Your task to perform on an android device: When is my next appointment? Image 0: 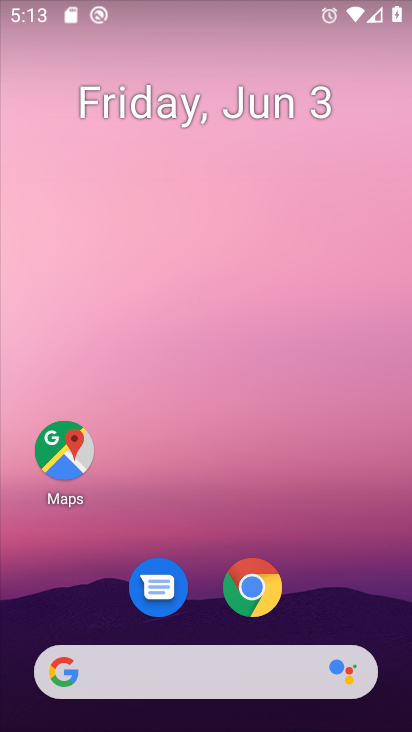
Step 0: drag from (122, 715) to (58, 51)
Your task to perform on an android device: When is my next appointment? Image 1: 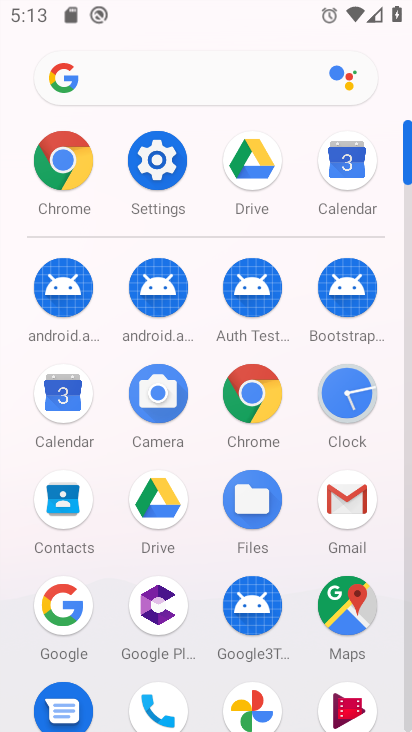
Step 1: click (350, 172)
Your task to perform on an android device: When is my next appointment? Image 2: 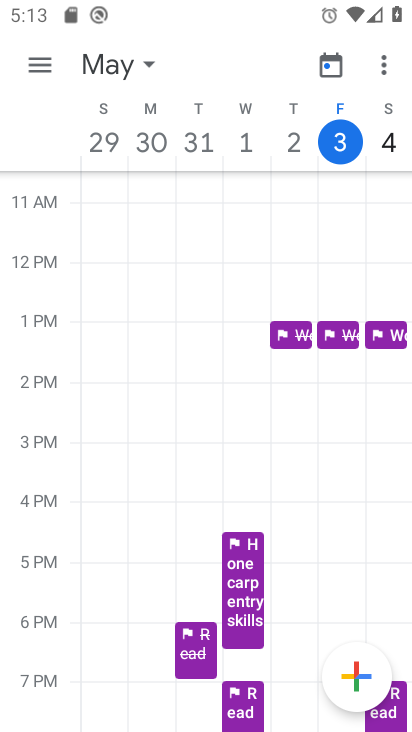
Step 2: click (34, 64)
Your task to perform on an android device: When is my next appointment? Image 3: 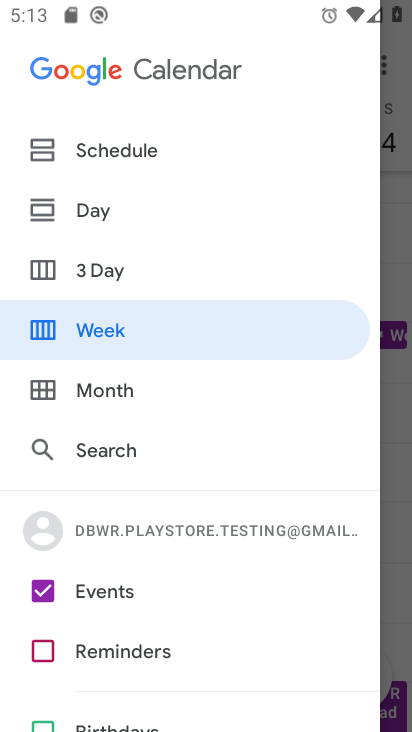
Step 3: click (121, 279)
Your task to perform on an android device: When is my next appointment? Image 4: 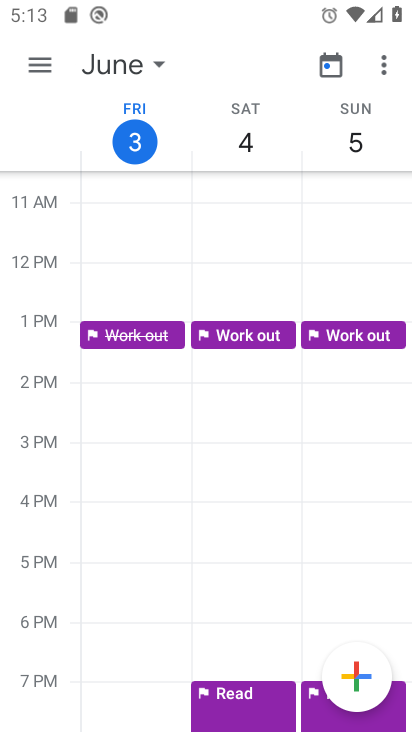
Step 4: click (266, 337)
Your task to perform on an android device: When is my next appointment? Image 5: 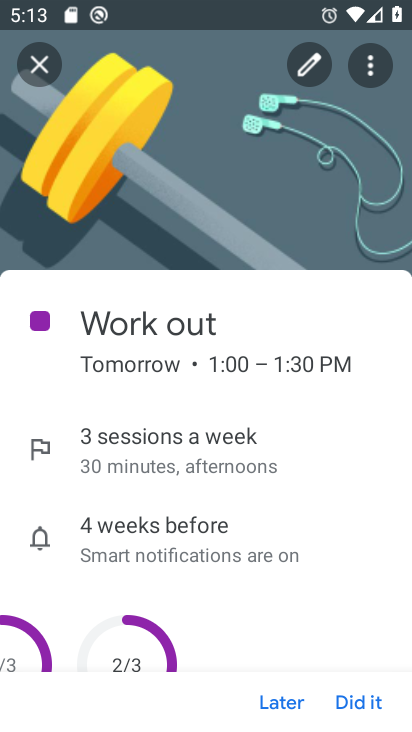
Step 5: click (47, 70)
Your task to perform on an android device: When is my next appointment? Image 6: 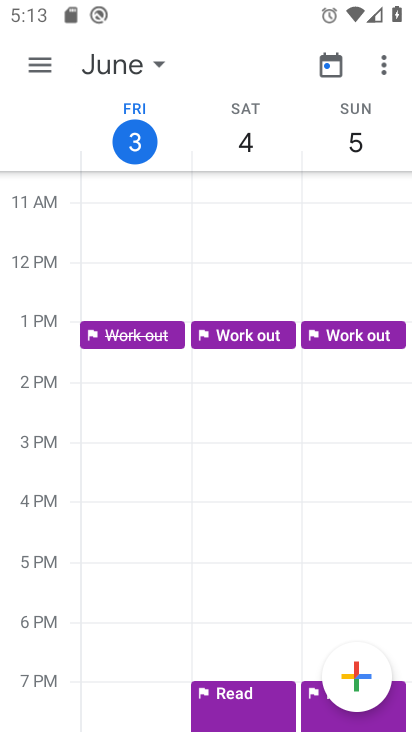
Step 6: task complete